Your task to perform on an android device: Go to calendar. Show me events next week Image 0: 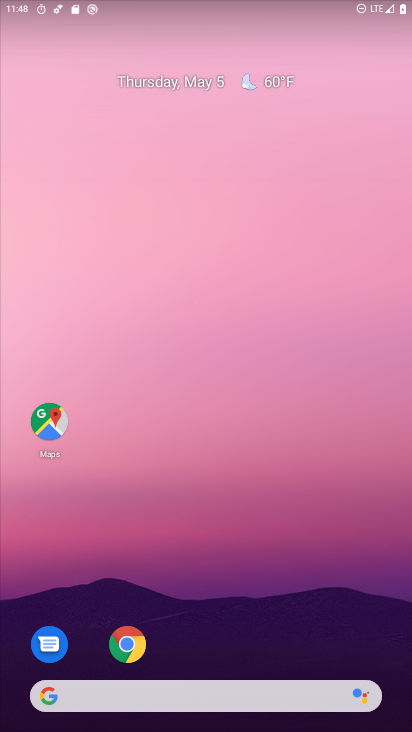
Step 0: drag from (366, 618) to (346, 145)
Your task to perform on an android device: Go to calendar. Show me events next week Image 1: 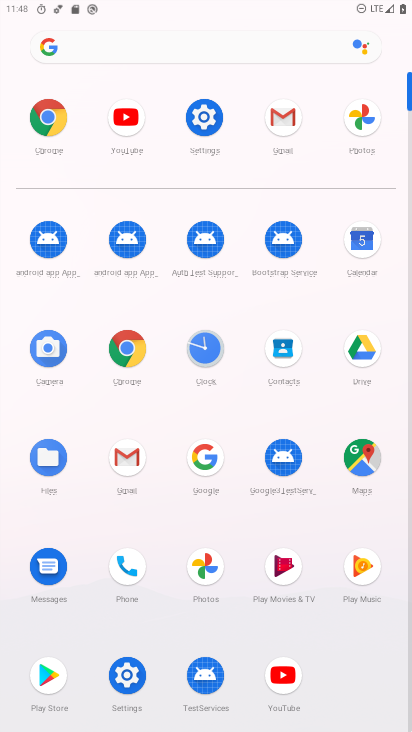
Step 1: click (360, 236)
Your task to perform on an android device: Go to calendar. Show me events next week Image 2: 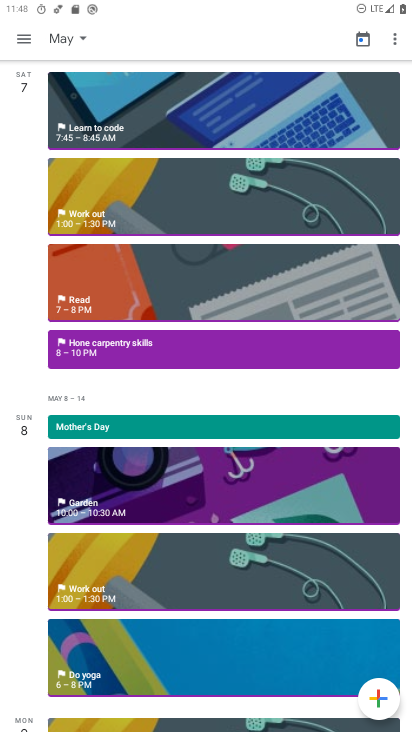
Step 2: click (60, 32)
Your task to perform on an android device: Go to calendar. Show me events next week Image 3: 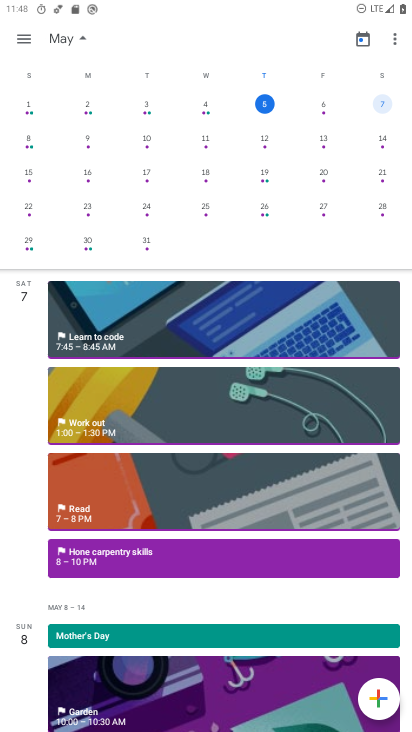
Step 3: click (29, 138)
Your task to perform on an android device: Go to calendar. Show me events next week Image 4: 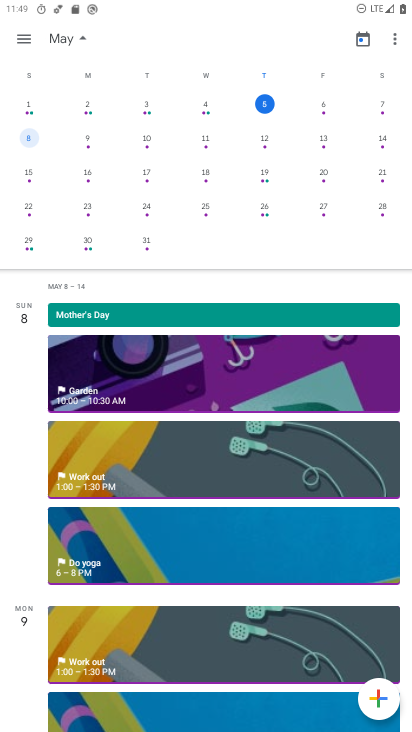
Step 4: task complete